Your task to perform on an android device: Go to Amazon Image 0: 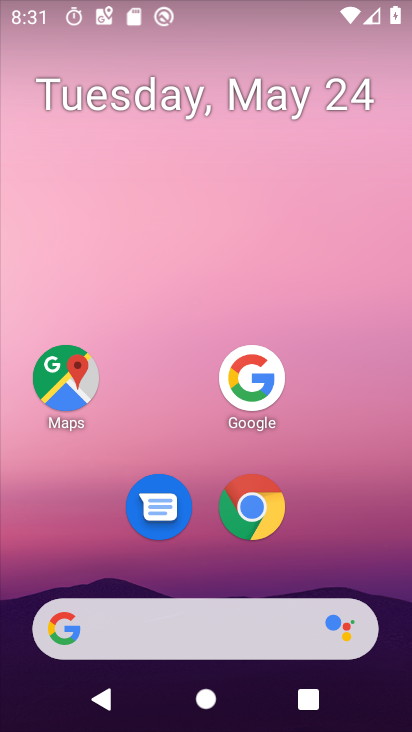
Step 0: press home button
Your task to perform on an android device: Go to Amazon Image 1: 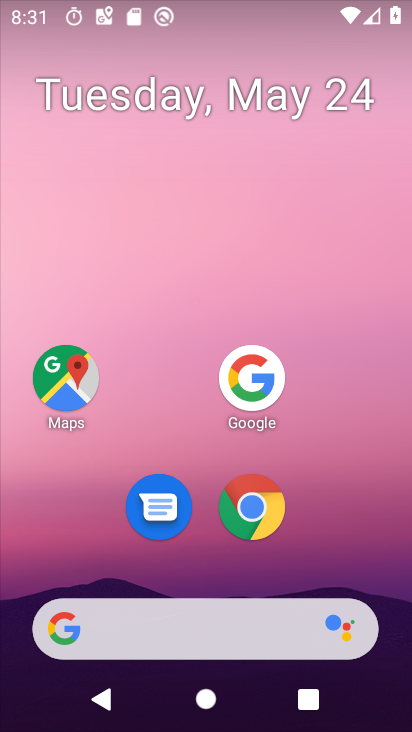
Step 1: click (253, 507)
Your task to perform on an android device: Go to Amazon Image 2: 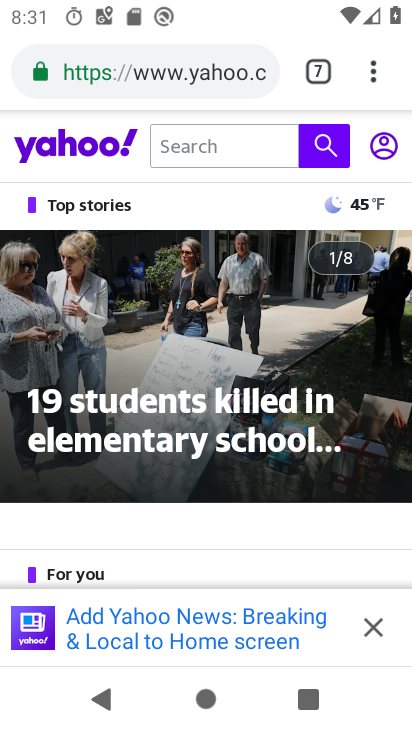
Step 2: drag from (375, 80) to (229, 136)
Your task to perform on an android device: Go to Amazon Image 3: 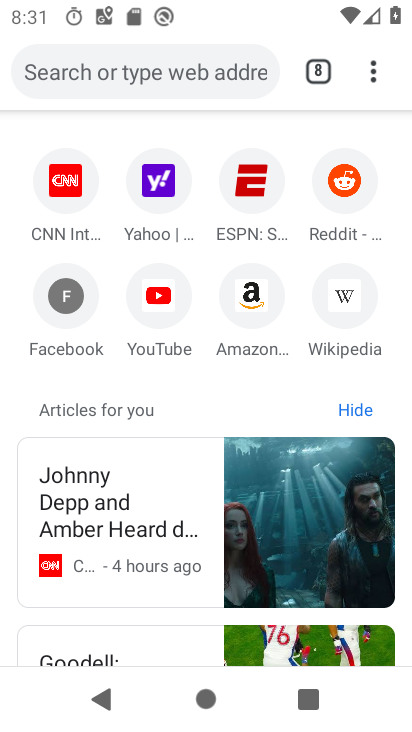
Step 3: click (249, 303)
Your task to perform on an android device: Go to Amazon Image 4: 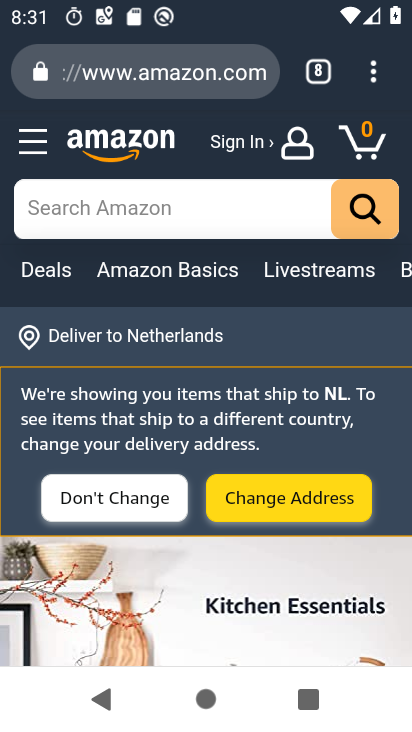
Step 4: task complete